Your task to perform on an android device: uninstall "Google Play Music" Image 0: 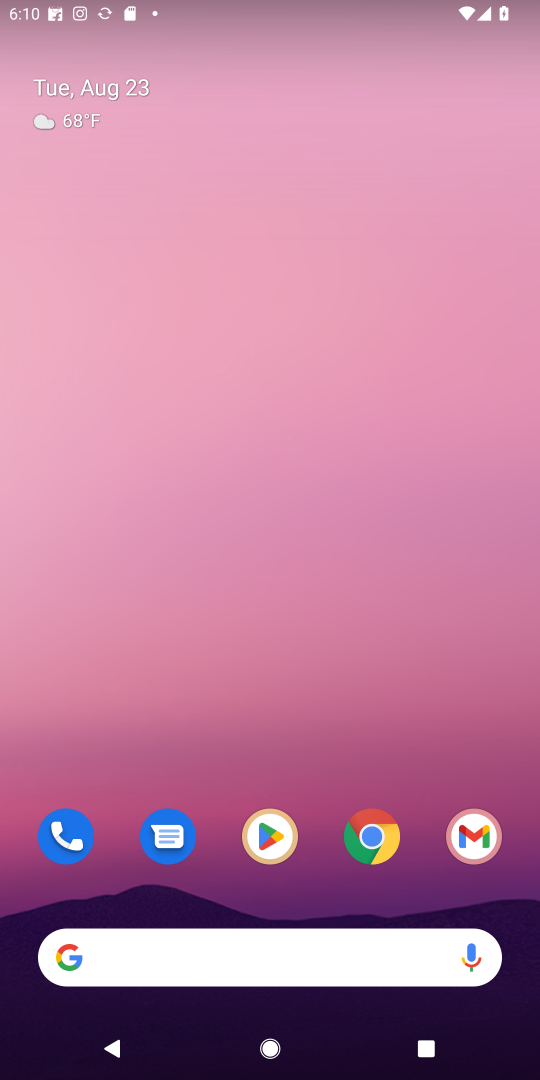
Step 0: click (272, 837)
Your task to perform on an android device: uninstall "Google Play Music" Image 1: 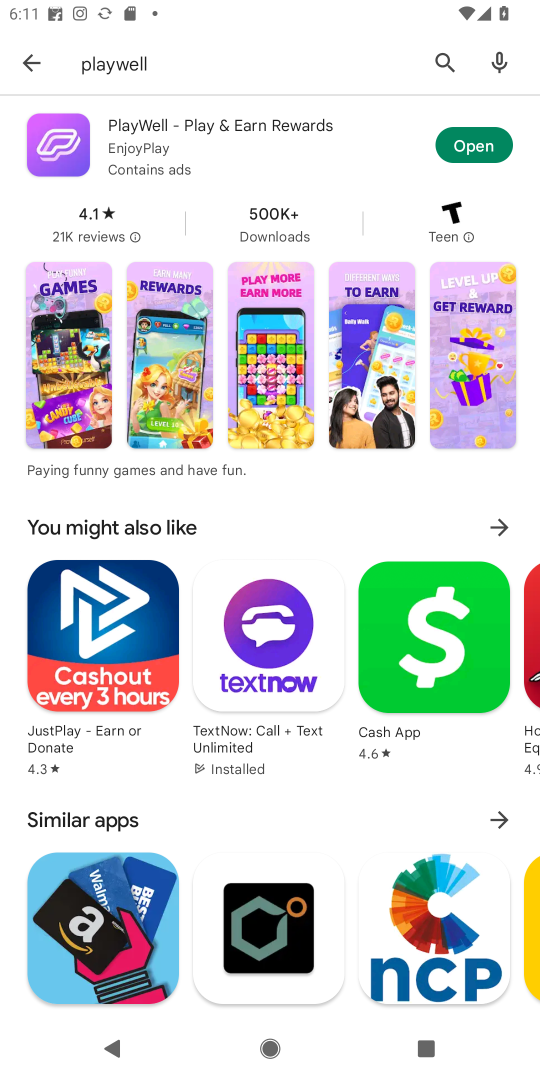
Step 1: click (453, 58)
Your task to perform on an android device: uninstall "Google Play Music" Image 2: 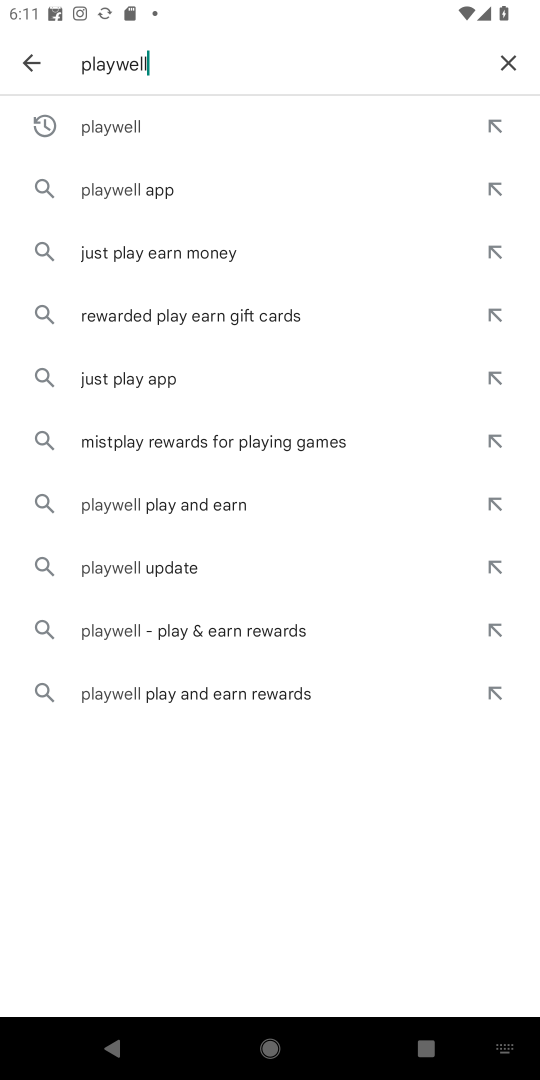
Step 2: click (508, 58)
Your task to perform on an android device: uninstall "Google Play Music" Image 3: 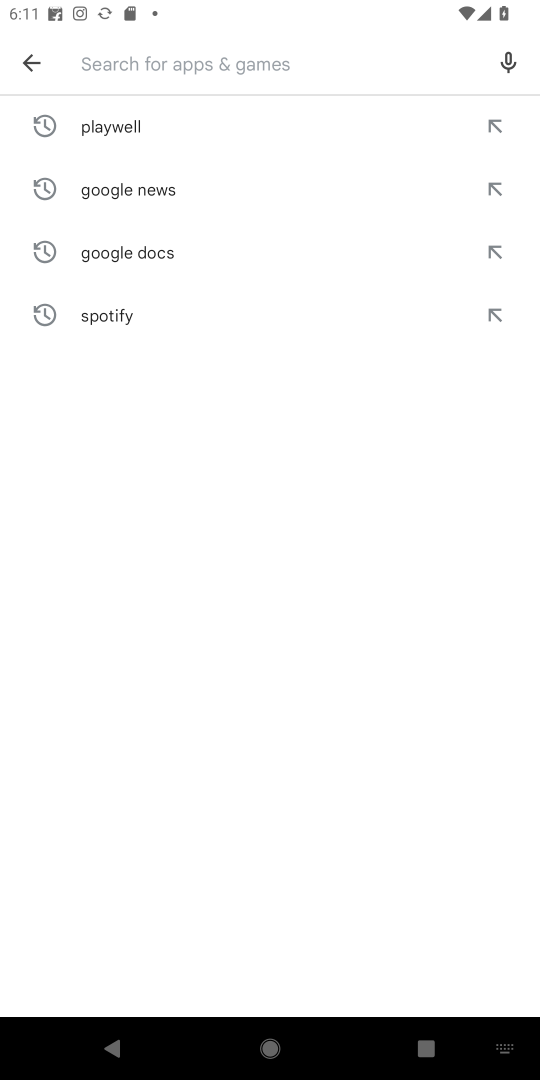
Step 3: type "Google Play Music"
Your task to perform on an android device: uninstall "Google Play Music" Image 4: 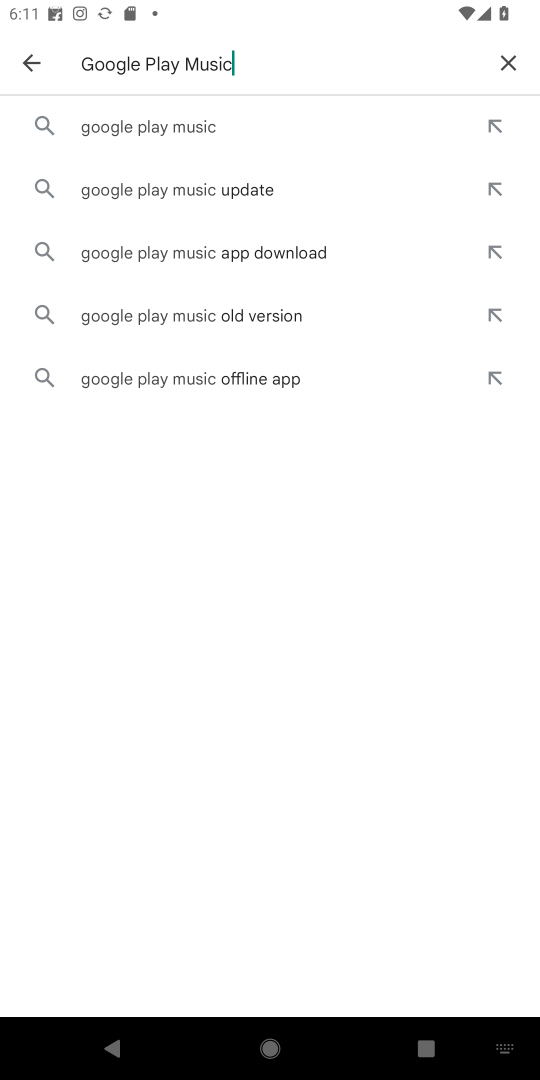
Step 4: click (136, 122)
Your task to perform on an android device: uninstall "Google Play Music" Image 5: 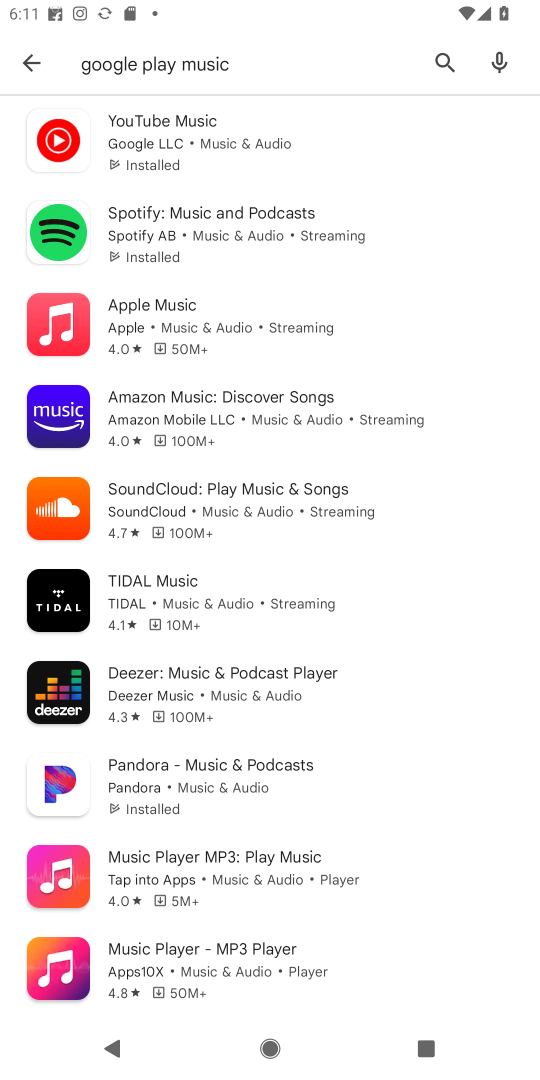
Step 5: drag from (351, 636) to (361, 285)
Your task to perform on an android device: uninstall "Google Play Music" Image 6: 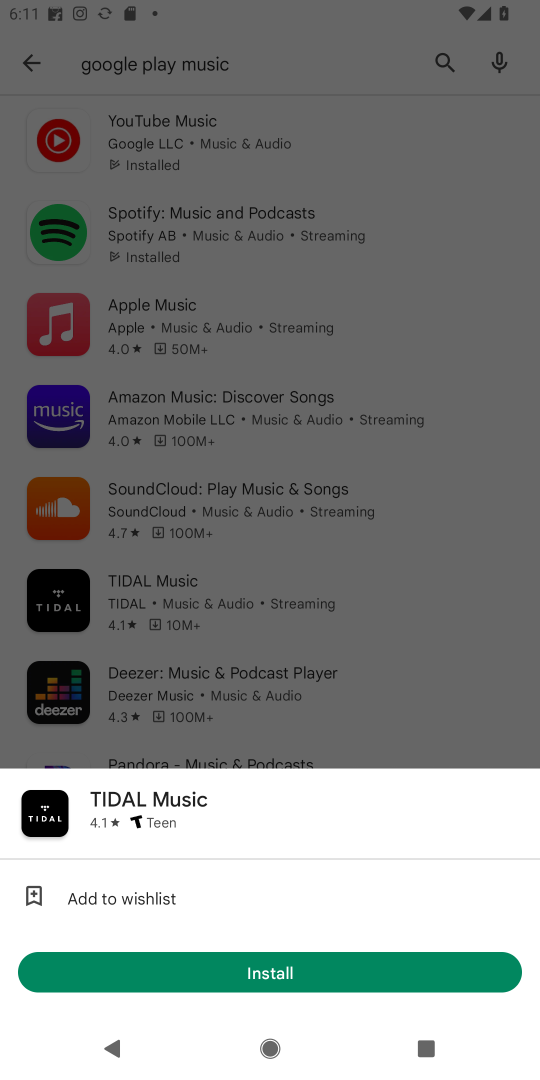
Step 6: click (407, 641)
Your task to perform on an android device: uninstall "Google Play Music" Image 7: 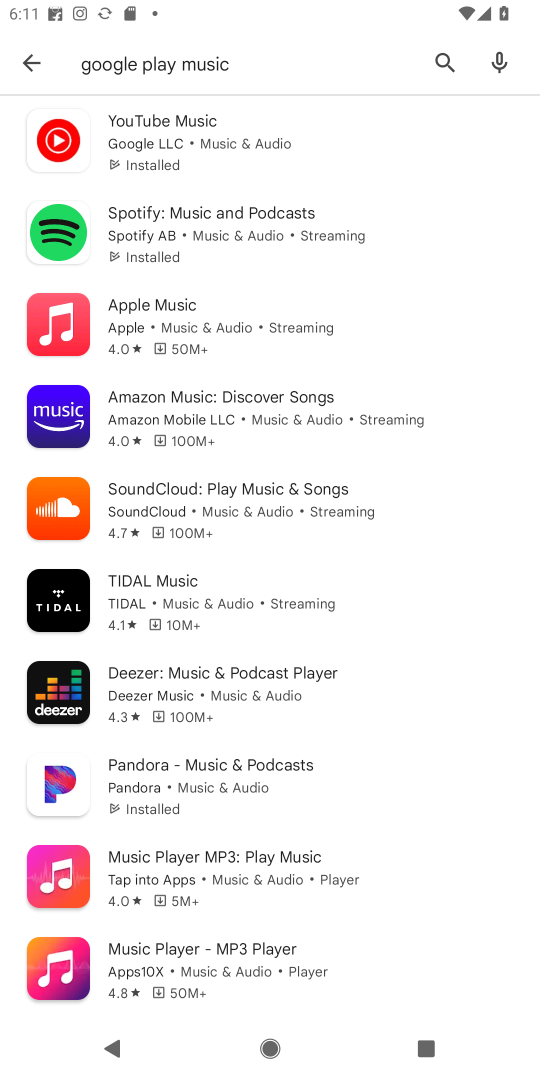
Step 7: drag from (411, 838) to (392, 373)
Your task to perform on an android device: uninstall "Google Play Music" Image 8: 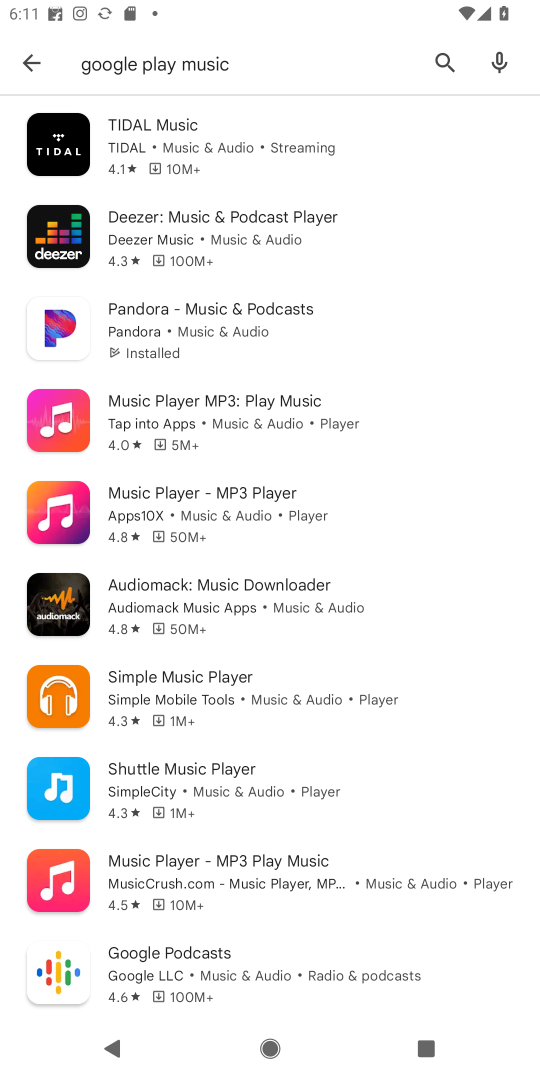
Step 8: drag from (399, 799) to (403, 407)
Your task to perform on an android device: uninstall "Google Play Music" Image 9: 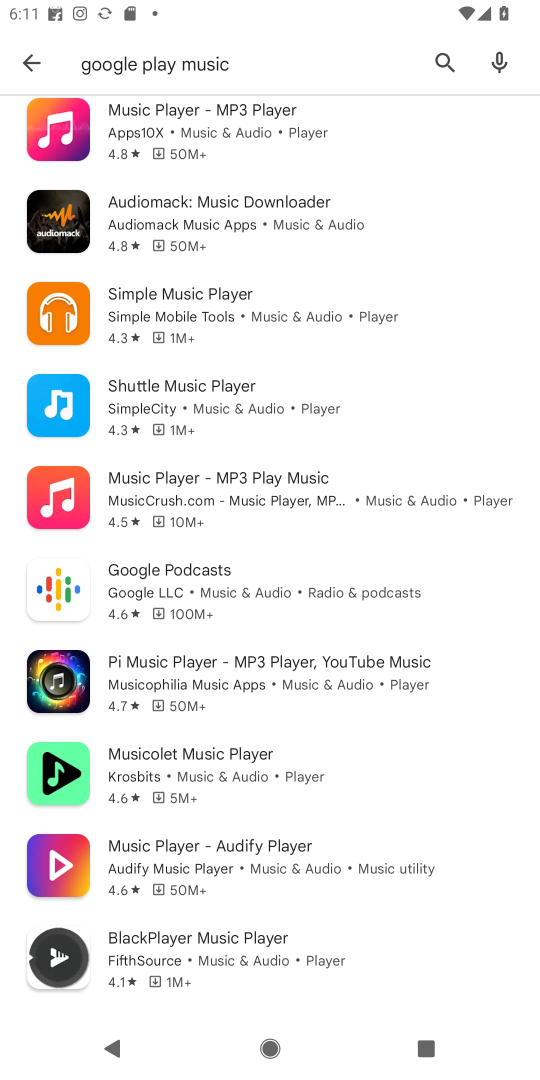
Step 9: drag from (401, 810) to (417, 319)
Your task to perform on an android device: uninstall "Google Play Music" Image 10: 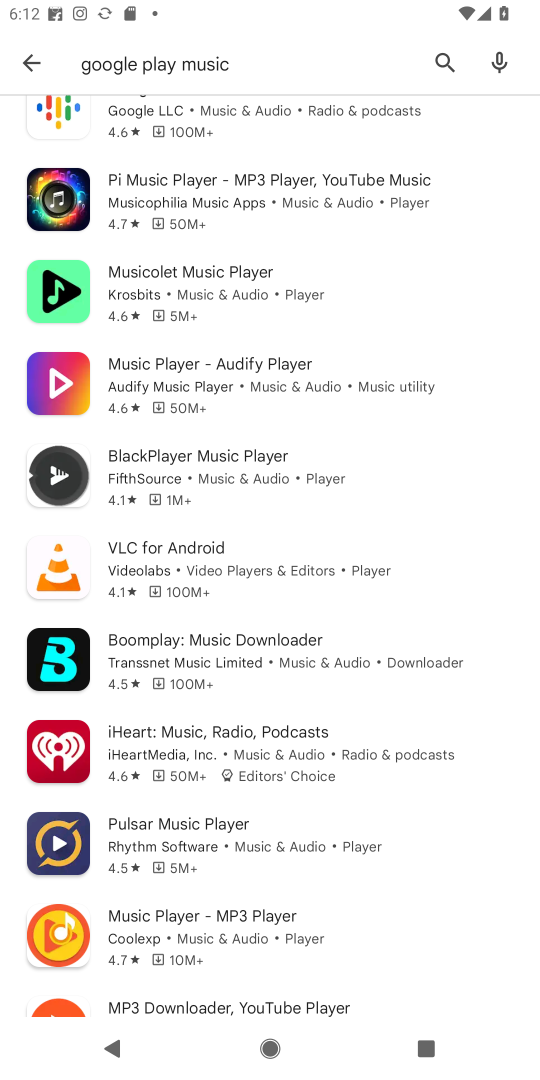
Step 10: drag from (371, 769) to (358, 462)
Your task to perform on an android device: uninstall "Google Play Music" Image 11: 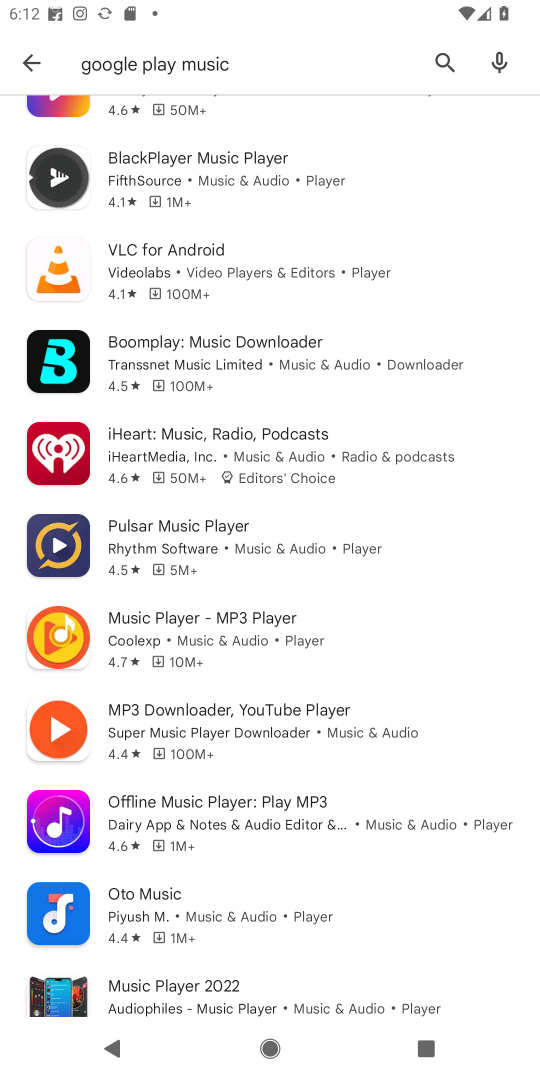
Step 11: drag from (380, 673) to (354, 322)
Your task to perform on an android device: uninstall "Google Play Music" Image 12: 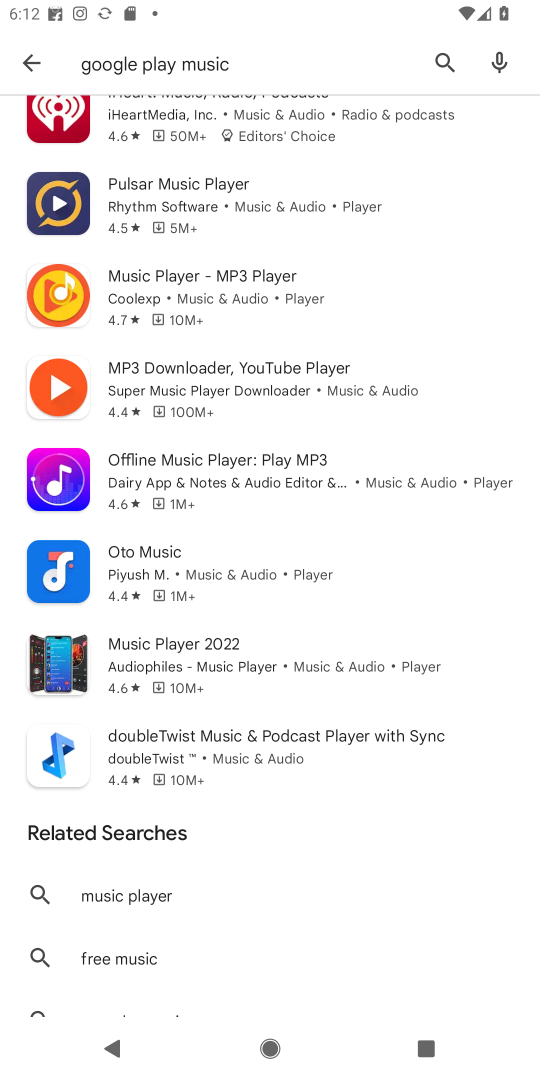
Step 12: drag from (374, 267) to (355, 551)
Your task to perform on an android device: uninstall "Google Play Music" Image 13: 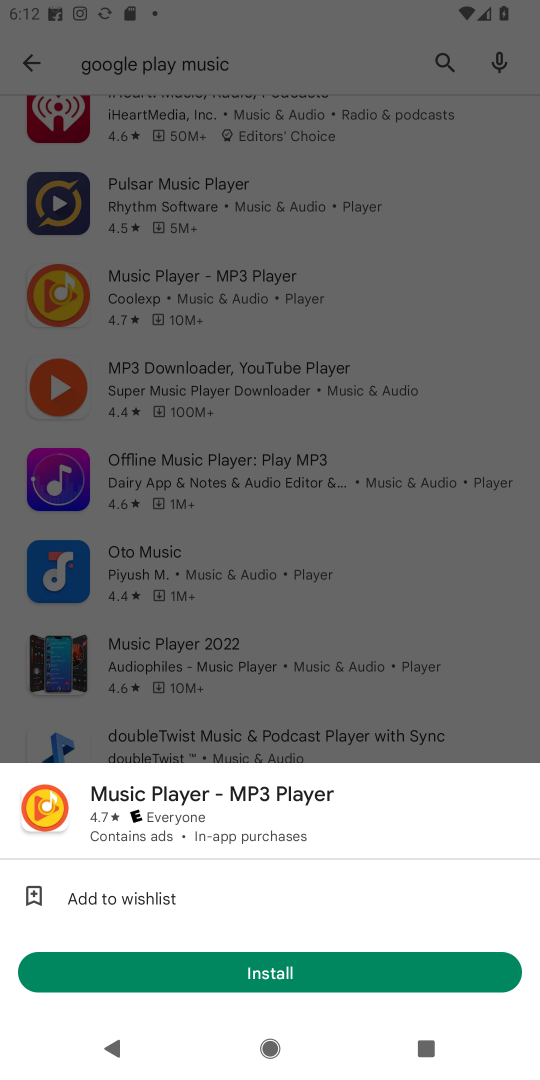
Step 13: click (439, 249)
Your task to perform on an android device: uninstall "Google Play Music" Image 14: 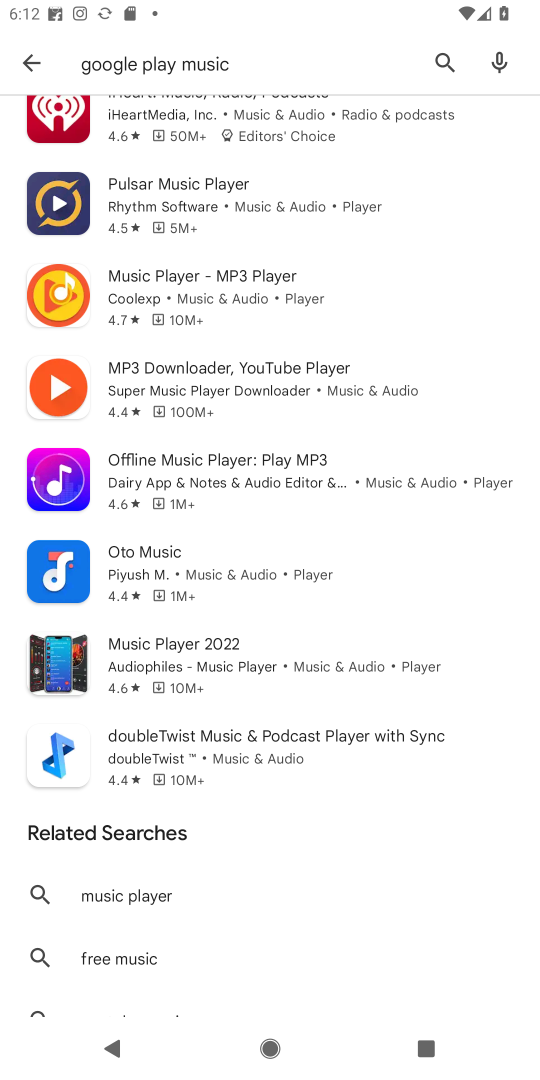
Step 14: task complete